Your task to perform on an android device: Open CNN.com Image 0: 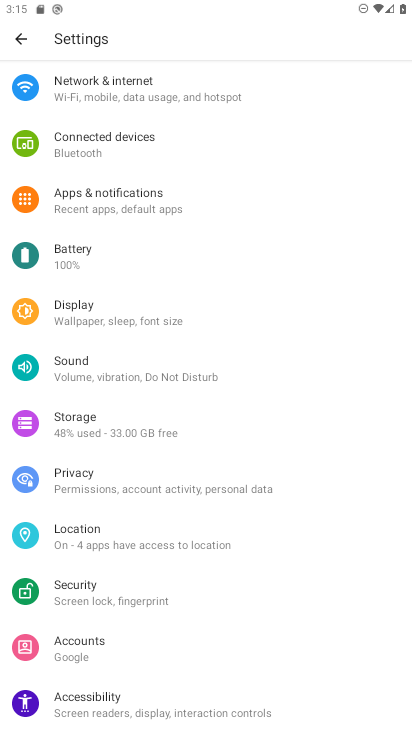
Step 0: press home button
Your task to perform on an android device: Open CNN.com Image 1: 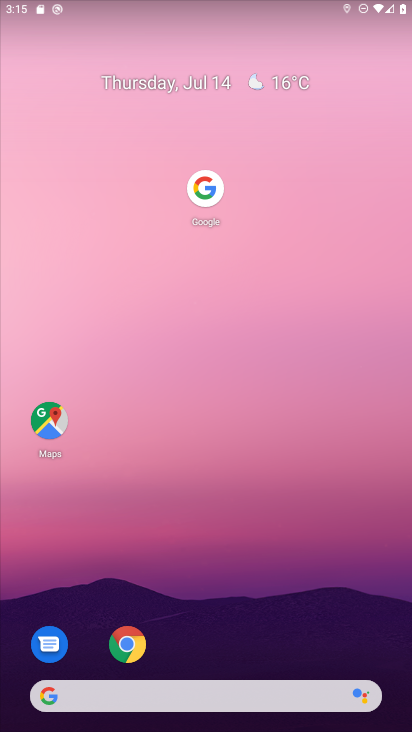
Step 1: click (138, 652)
Your task to perform on an android device: Open CNN.com Image 2: 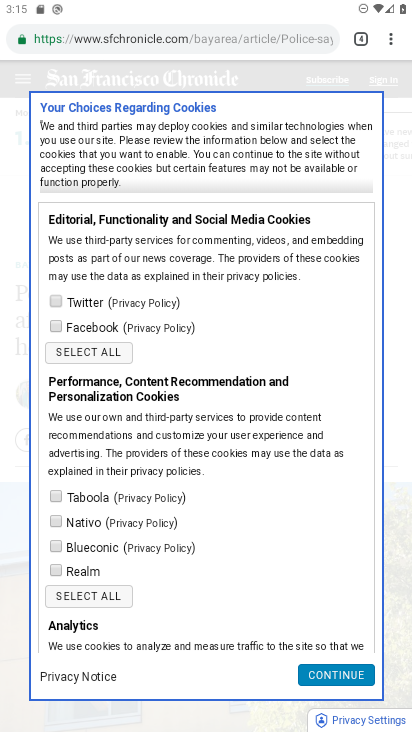
Step 2: click (370, 37)
Your task to perform on an android device: Open CNN.com Image 3: 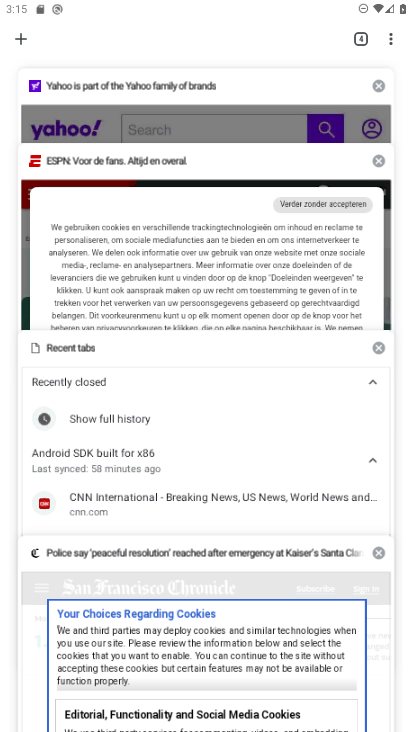
Step 3: click (170, 510)
Your task to perform on an android device: Open CNN.com Image 4: 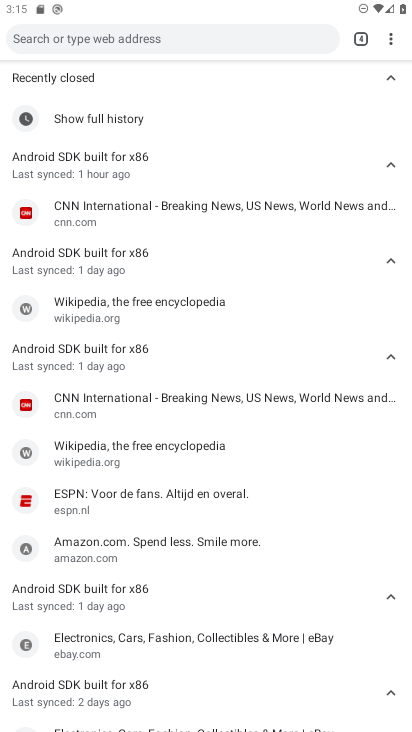
Step 4: click (359, 38)
Your task to perform on an android device: Open CNN.com Image 5: 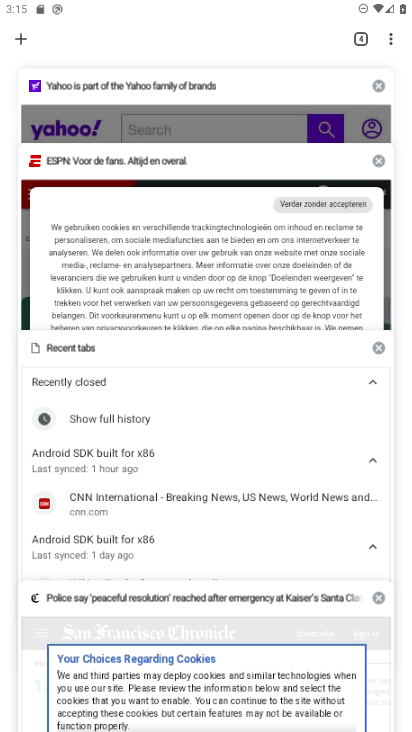
Step 5: click (23, 26)
Your task to perform on an android device: Open CNN.com Image 6: 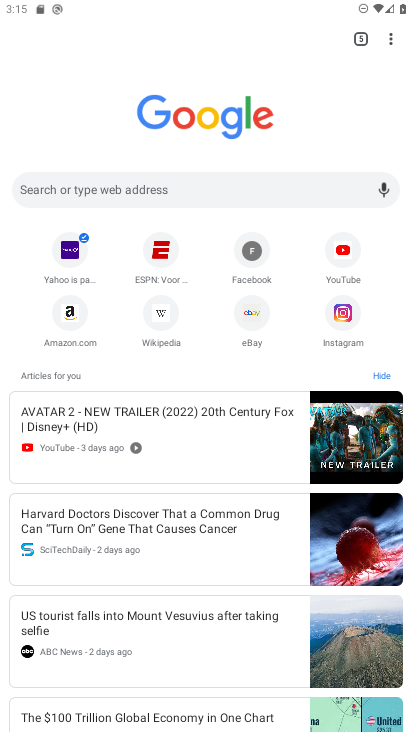
Step 6: type "CNN.com"
Your task to perform on an android device: Open CNN.com Image 7: 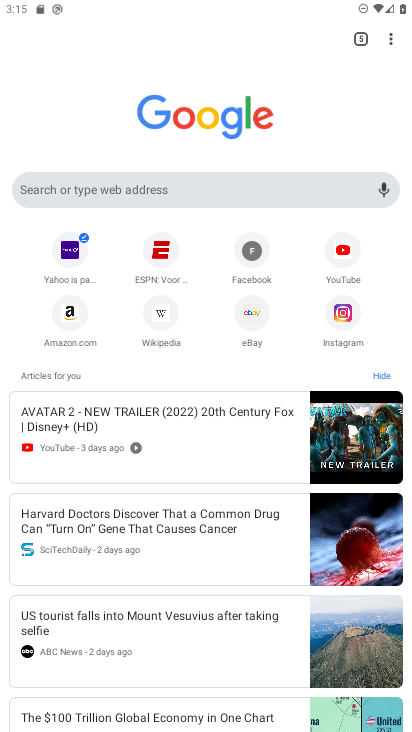
Step 7: click (199, 193)
Your task to perform on an android device: Open CNN.com Image 8: 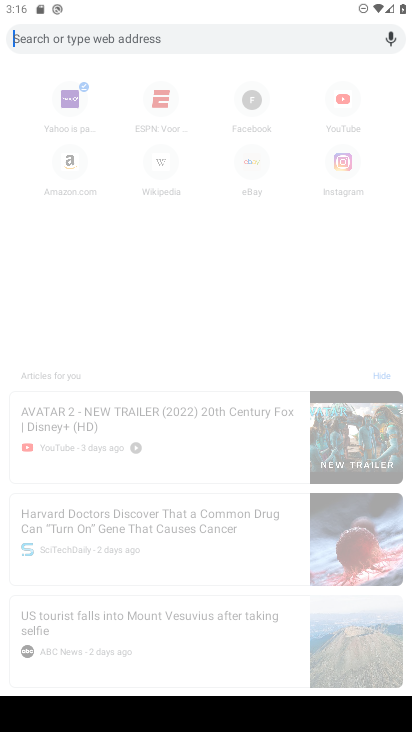
Step 8: type "CNN.com"
Your task to perform on an android device: Open CNN.com Image 9: 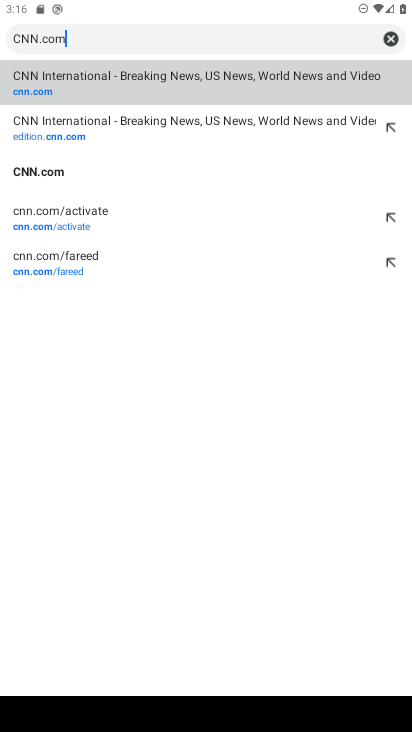
Step 9: click (140, 106)
Your task to perform on an android device: Open CNN.com Image 10: 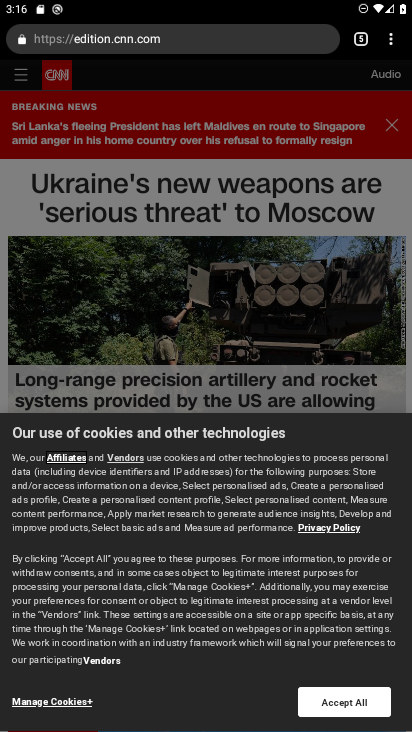
Step 10: task complete